Your task to perform on an android device: read, delete, or share a saved page in the chrome app Image 0: 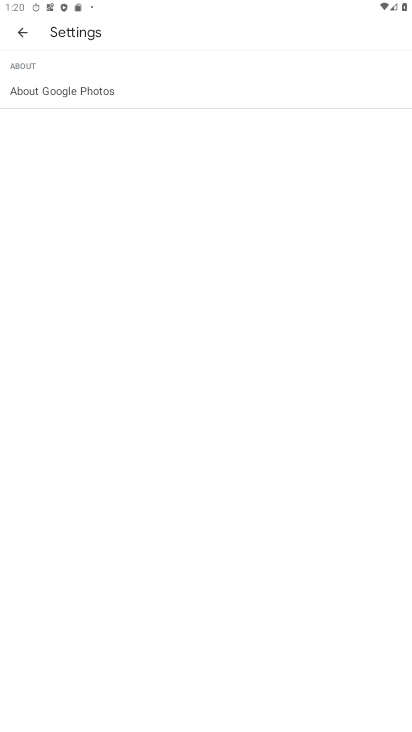
Step 0: press home button
Your task to perform on an android device: read, delete, or share a saved page in the chrome app Image 1: 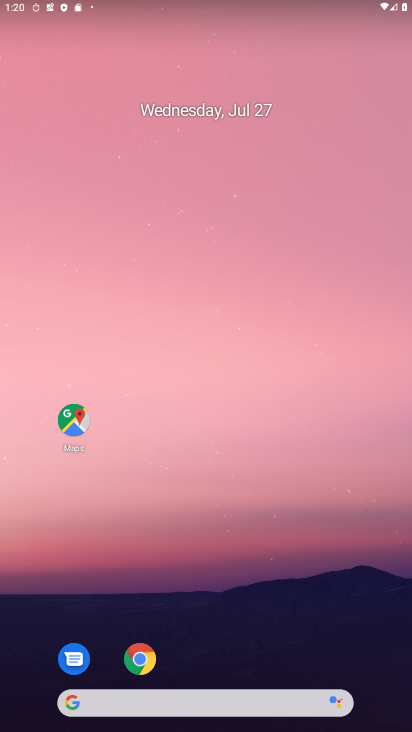
Step 1: drag from (359, 608) to (256, 104)
Your task to perform on an android device: read, delete, or share a saved page in the chrome app Image 2: 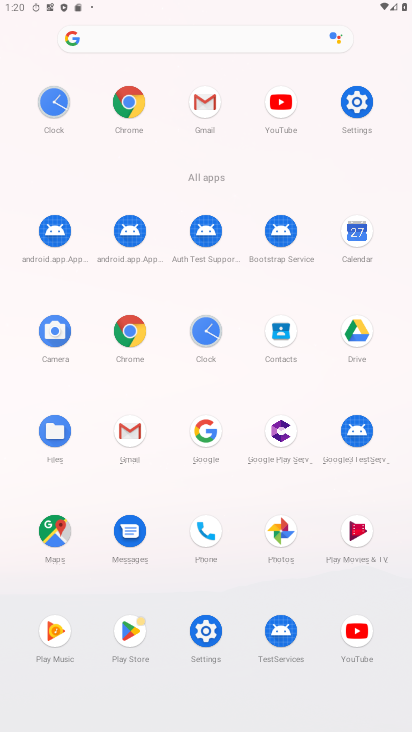
Step 2: click (121, 112)
Your task to perform on an android device: read, delete, or share a saved page in the chrome app Image 3: 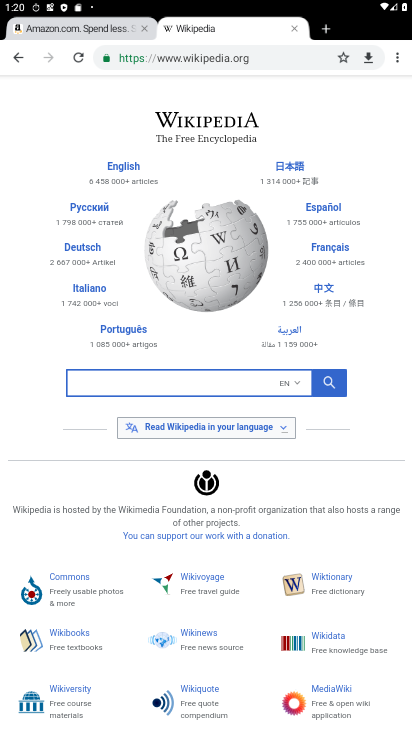
Step 3: task complete